Your task to perform on an android device: turn on showing notifications on the lock screen Image 0: 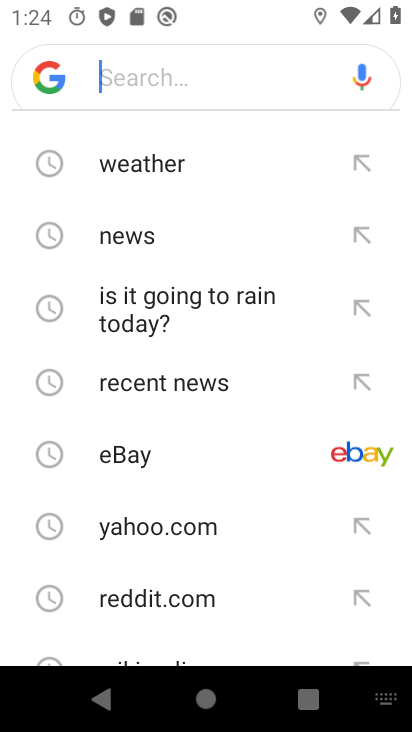
Step 0: press home button
Your task to perform on an android device: turn on showing notifications on the lock screen Image 1: 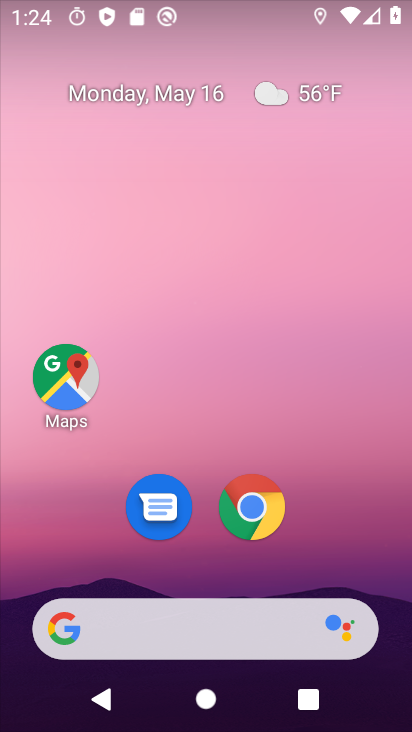
Step 1: drag from (203, 548) to (215, 112)
Your task to perform on an android device: turn on showing notifications on the lock screen Image 2: 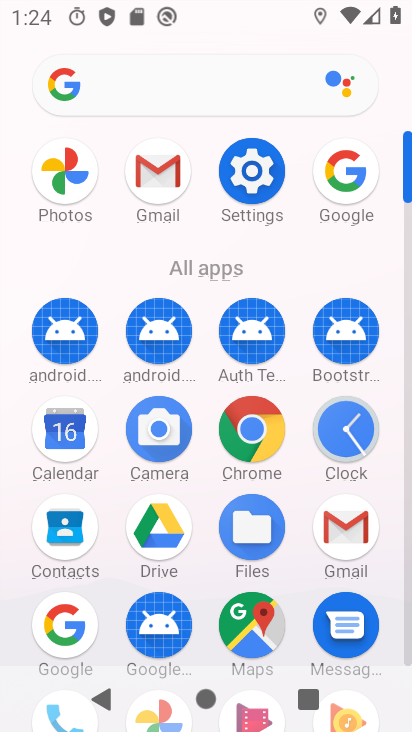
Step 2: drag from (201, 464) to (200, 171)
Your task to perform on an android device: turn on showing notifications on the lock screen Image 3: 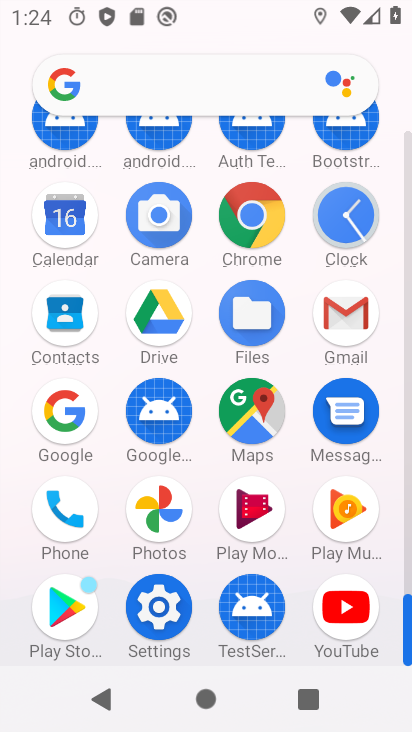
Step 3: click (165, 602)
Your task to perform on an android device: turn on showing notifications on the lock screen Image 4: 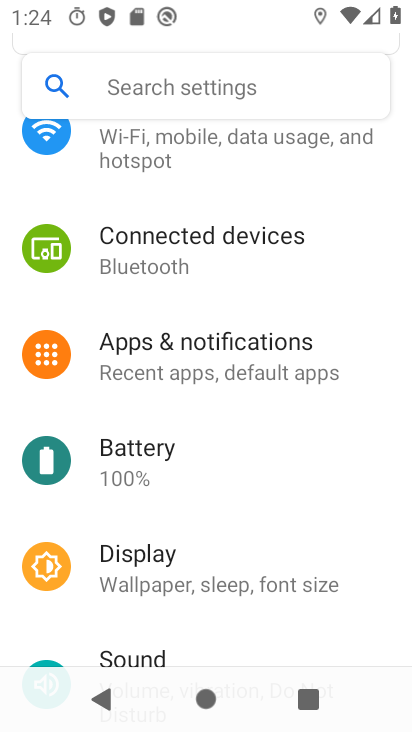
Step 4: click (209, 356)
Your task to perform on an android device: turn on showing notifications on the lock screen Image 5: 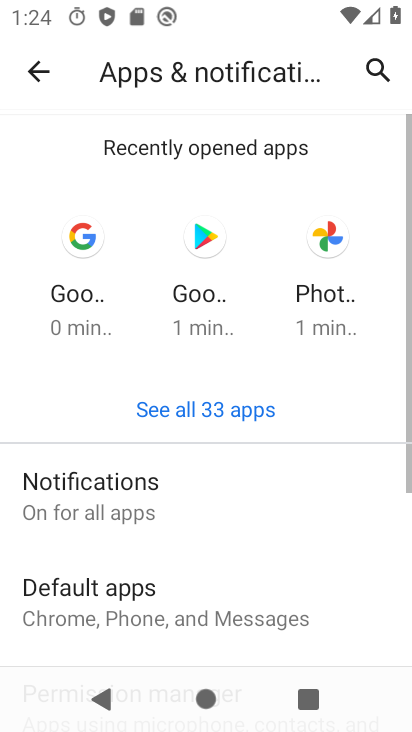
Step 5: click (131, 494)
Your task to perform on an android device: turn on showing notifications on the lock screen Image 6: 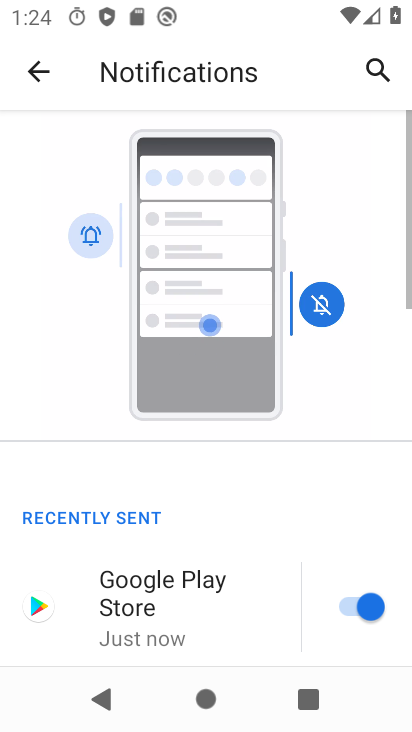
Step 6: drag from (262, 508) to (212, 66)
Your task to perform on an android device: turn on showing notifications on the lock screen Image 7: 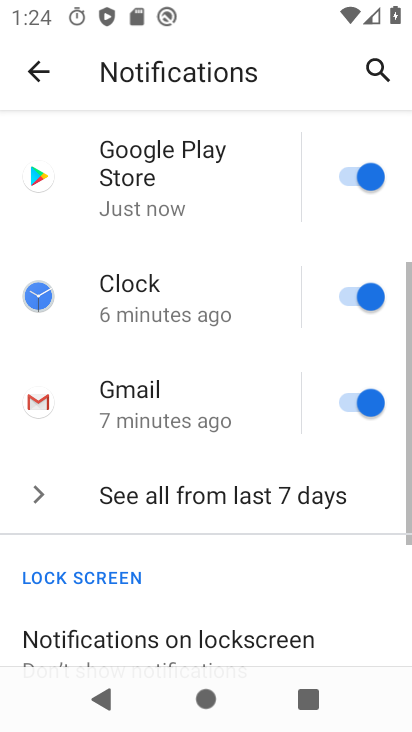
Step 7: drag from (276, 571) to (237, 156)
Your task to perform on an android device: turn on showing notifications on the lock screen Image 8: 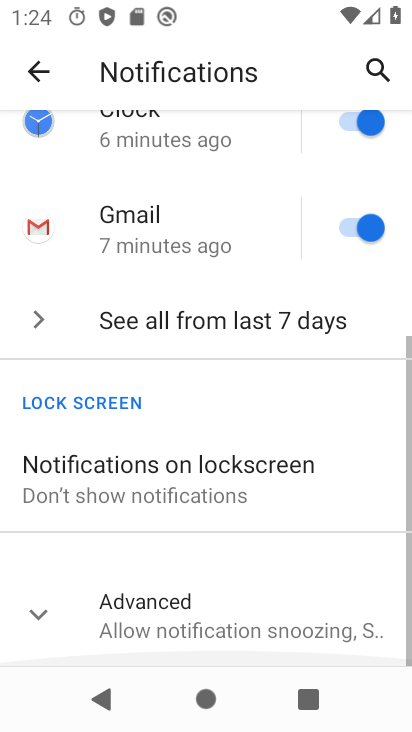
Step 8: click (145, 492)
Your task to perform on an android device: turn on showing notifications on the lock screen Image 9: 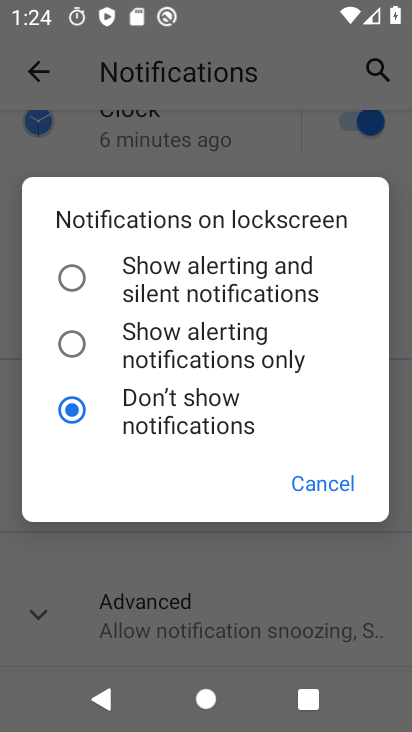
Step 9: click (67, 277)
Your task to perform on an android device: turn on showing notifications on the lock screen Image 10: 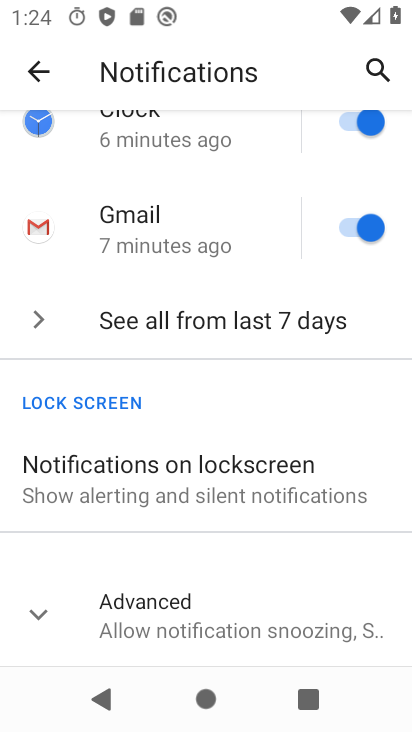
Step 10: task complete